Your task to perform on an android device: toggle show notifications on the lock screen Image 0: 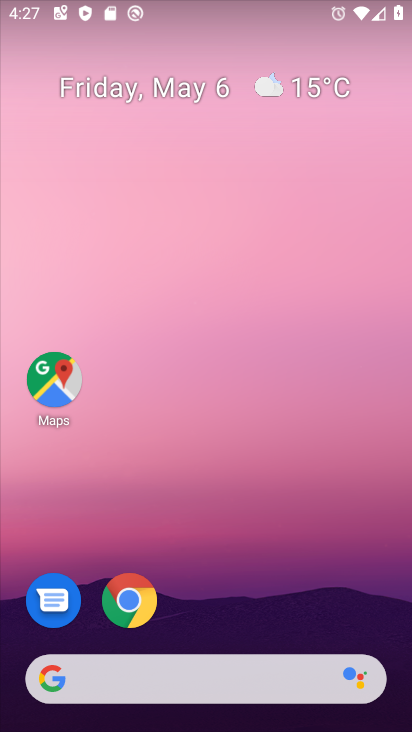
Step 0: drag from (214, 623) to (235, 215)
Your task to perform on an android device: toggle show notifications on the lock screen Image 1: 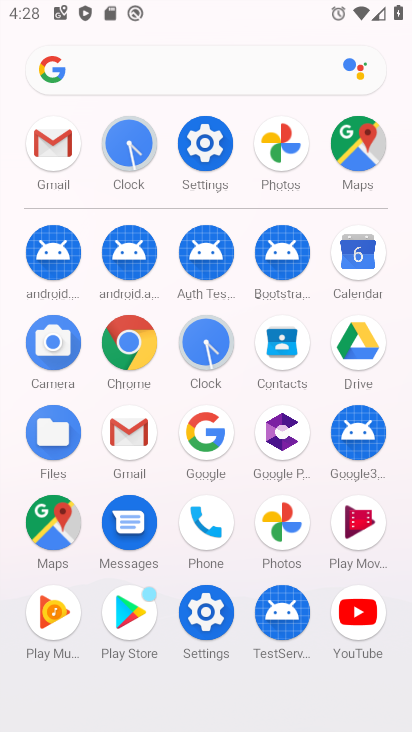
Step 1: click (202, 164)
Your task to perform on an android device: toggle show notifications on the lock screen Image 2: 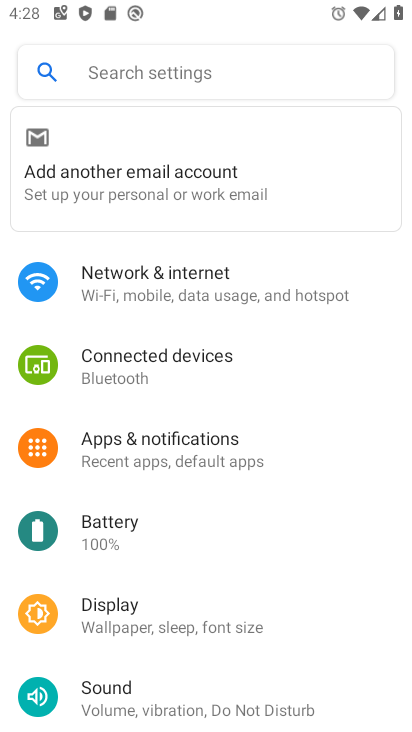
Step 2: click (164, 469)
Your task to perform on an android device: toggle show notifications on the lock screen Image 3: 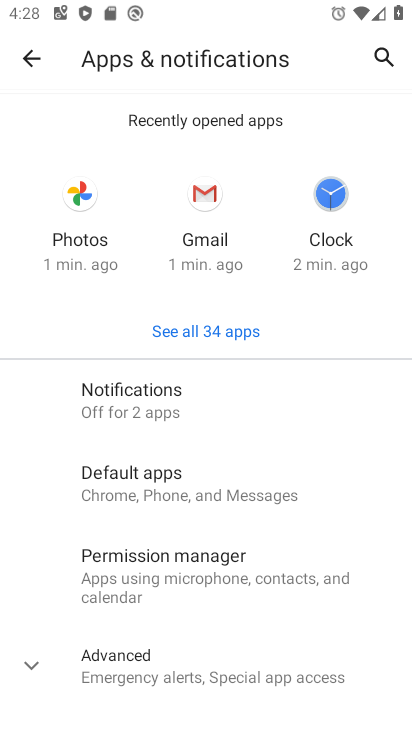
Step 3: click (149, 409)
Your task to perform on an android device: toggle show notifications on the lock screen Image 4: 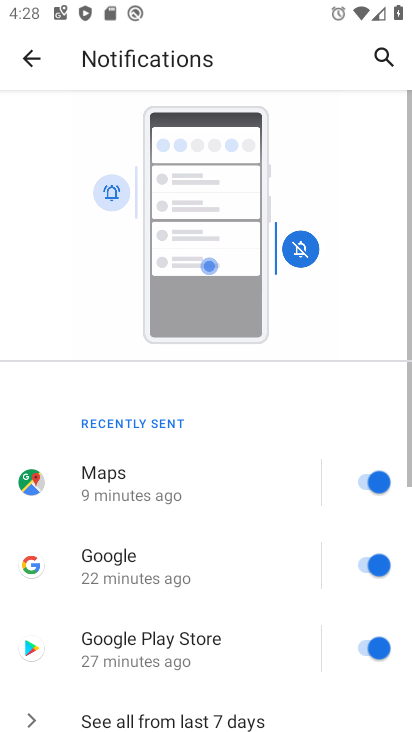
Step 4: drag from (156, 579) to (231, 231)
Your task to perform on an android device: toggle show notifications on the lock screen Image 5: 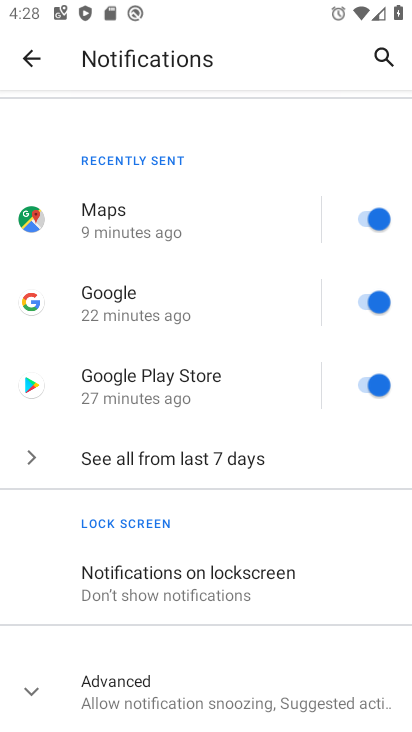
Step 5: click (185, 600)
Your task to perform on an android device: toggle show notifications on the lock screen Image 6: 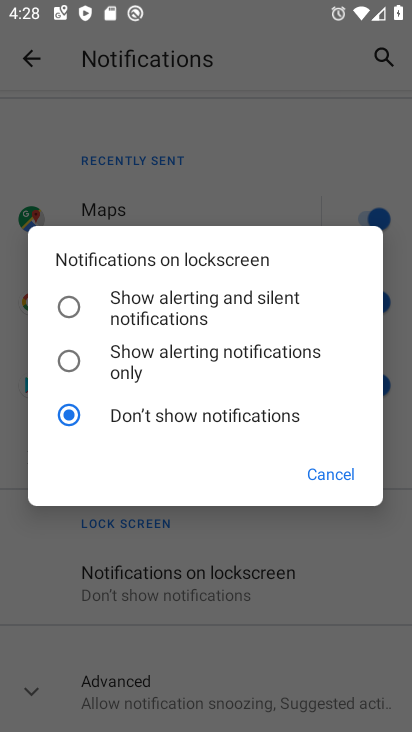
Step 6: click (141, 313)
Your task to perform on an android device: toggle show notifications on the lock screen Image 7: 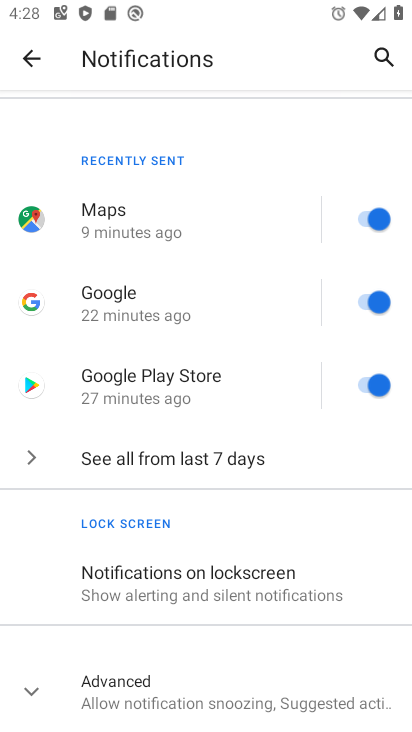
Step 7: task complete